Your task to perform on an android device: Open calendar and show me the third week of next month Image 0: 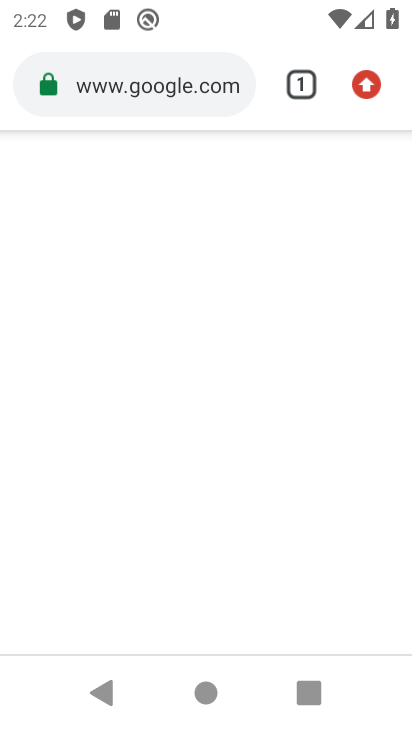
Step 0: press back button
Your task to perform on an android device: Open calendar and show me the third week of next month Image 1: 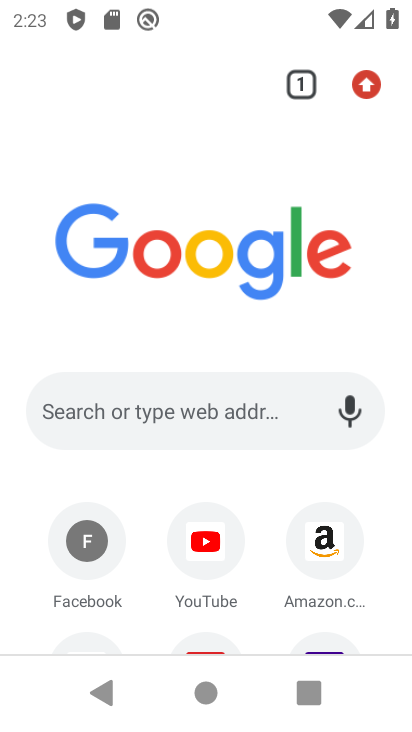
Step 1: press home button
Your task to perform on an android device: Open calendar and show me the third week of next month Image 2: 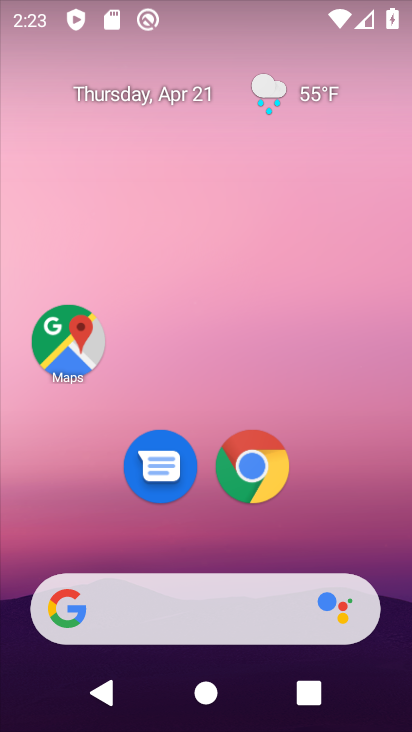
Step 2: drag from (145, 565) to (131, 139)
Your task to perform on an android device: Open calendar and show me the third week of next month Image 3: 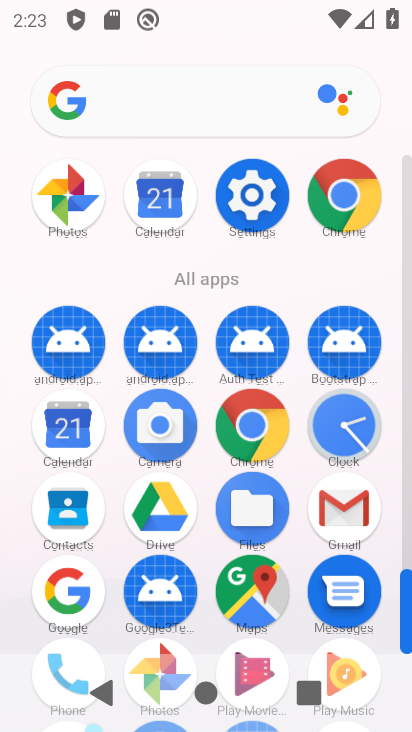
Step 3: click (72, 434)
Your task to perform on an android device: Open calendar and show me the third week of next month Image 4: 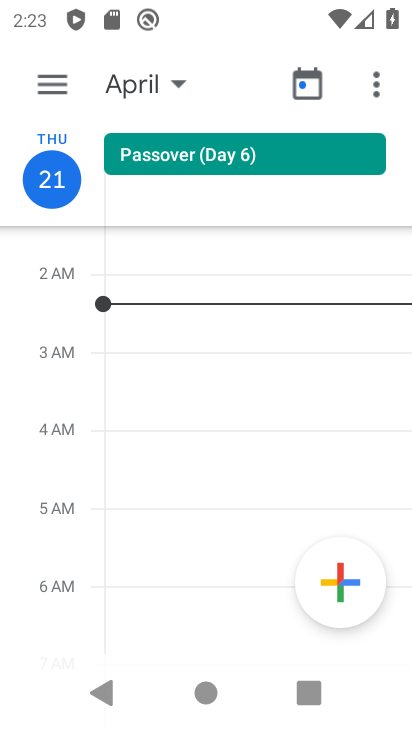
Step 4: click (180, 83)
Your task to perform on an android device: Open calendar and show me the third week of next month Image 5: 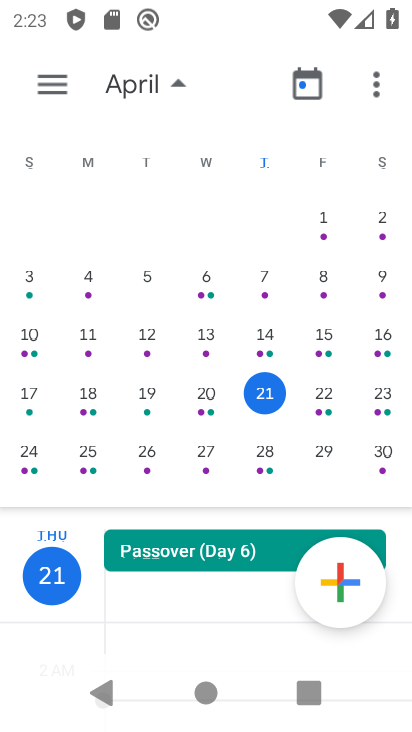
Step 5: drag from (392, 314) to (64, 314)
Your task to perform on an android device: Open calendar and show me the third week of next month Image 6: 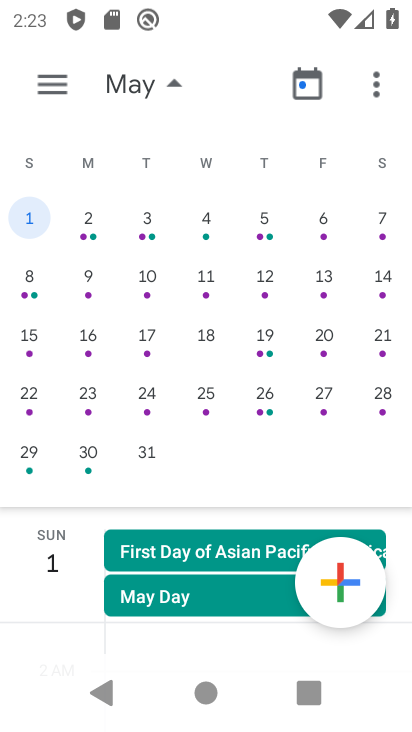
Step 6: click (319, 334)
Your task to perform on an android device: Open calendar and show me the third week of next month Image 7: 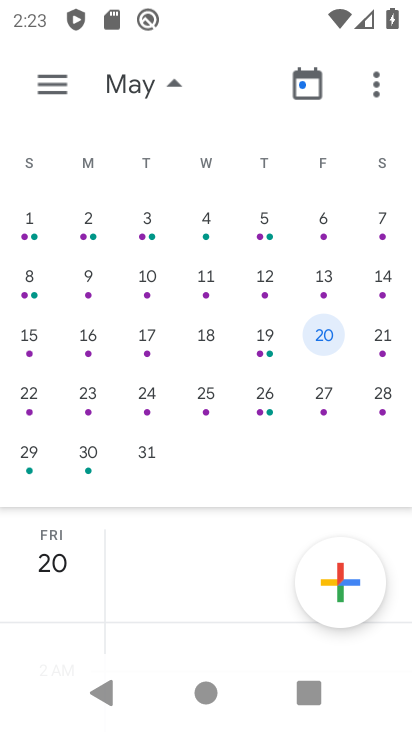
Step 7: task complete